Your task to perform on an android device: Open Google Chrome and open the bookmarks view Image 0: 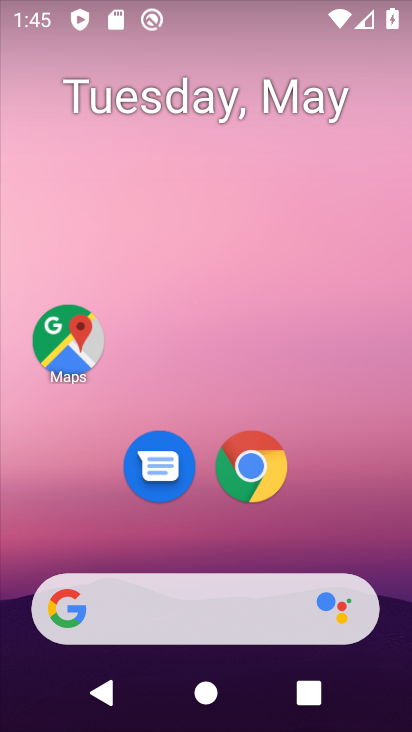
Step 0: click (265, 454)
Your task to perform on an android device: Open Google Chrome and open the bookmarks view Image 1: 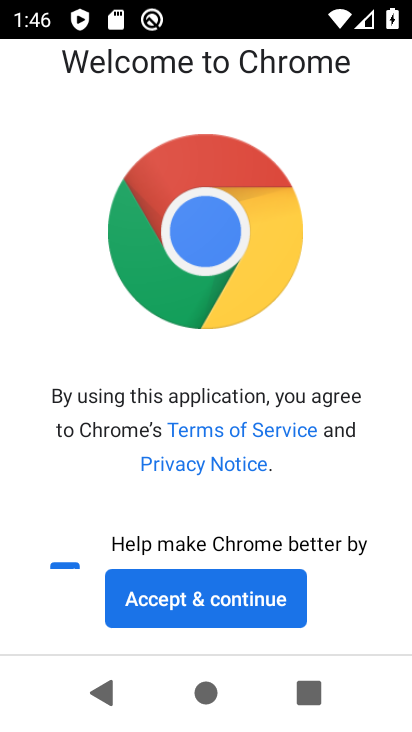
Step 1: click (269, 596)
Your task to perform on an android device: Open Google Chrome and open the bookmarks view Image 2: 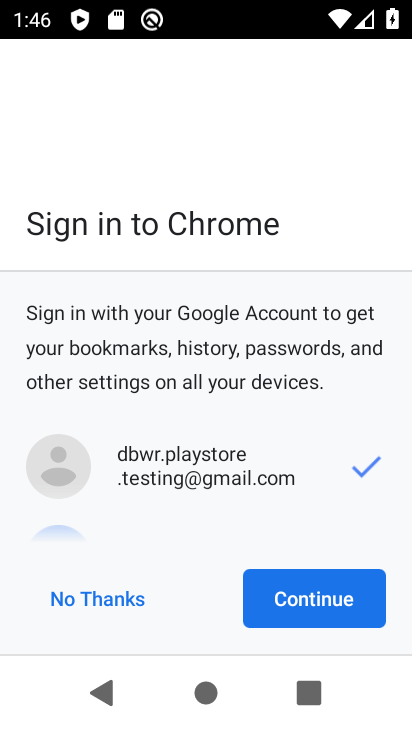
Step 2: click (307, 609)
Your task to perform on an android device: Open Google Chrome and open the bookmarks view Image 3: 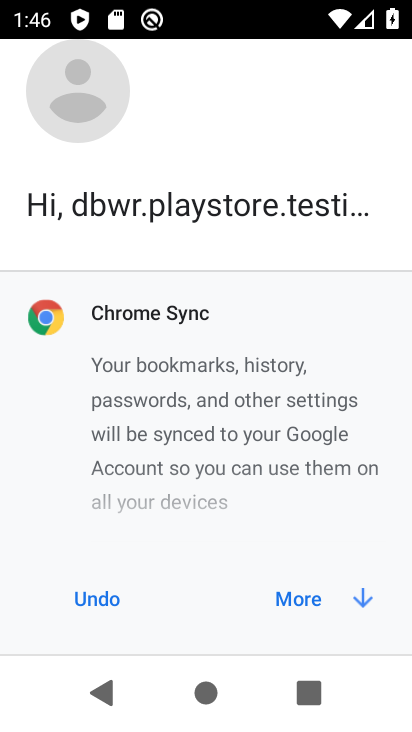
Step 3: click (307, 609)
Your task to perform on an android device: Open Google Chrome and open the bookmarks view Image 4: 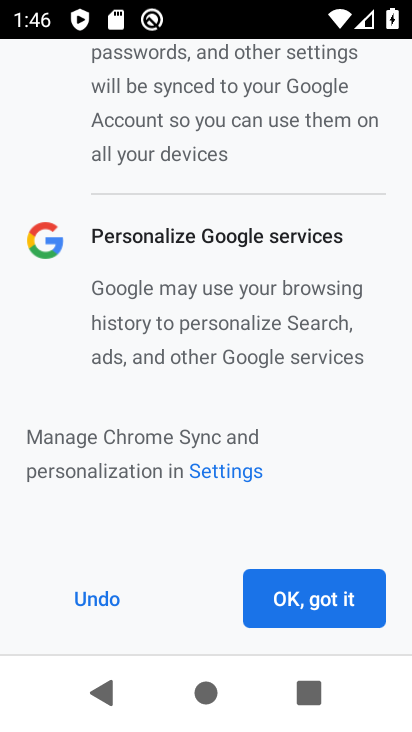
Step 4: click (297, 602)
Your task to perform on an android device: Open Google Chrome and open the bookmarks view Image 5: 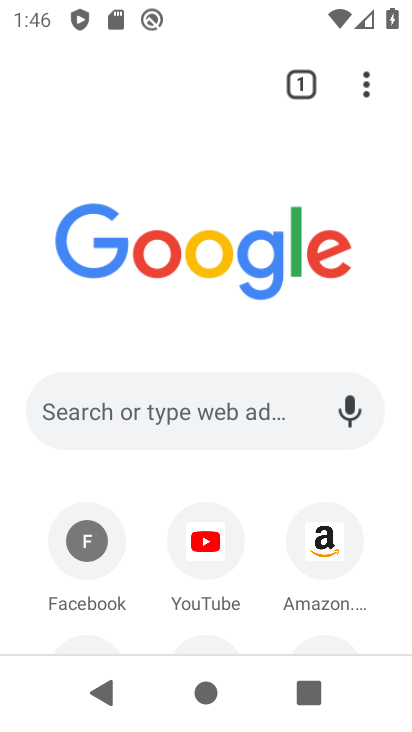
Step 5: task complete